Your task to perform on an android device: Open eBay Image 0: 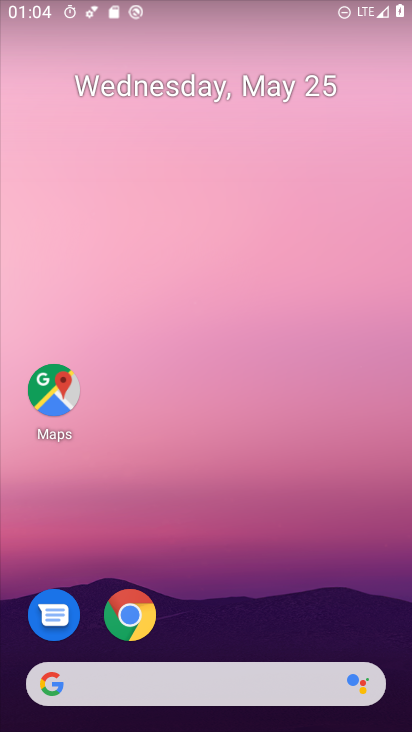
Step 0: press home button
Your task to perform on an android device: Open eBay Image 1: 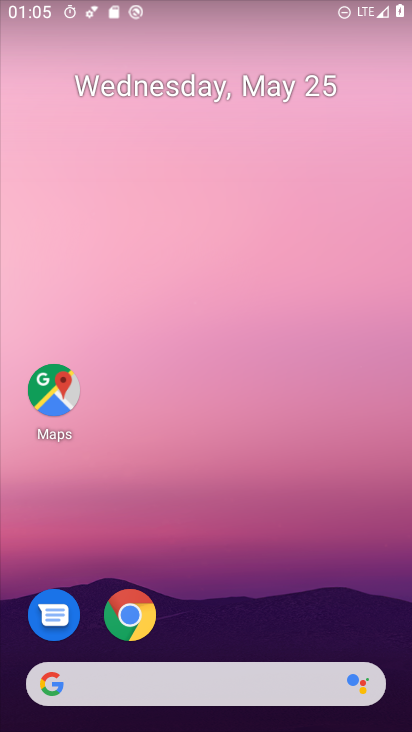
Step 1: drag from (241, 658) to (346, 105)
Your task to perform on an android device: Open eBay Image 2: 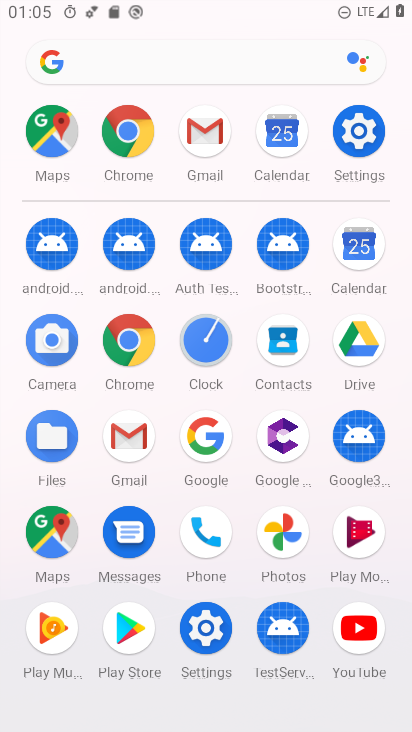
Step 2: click (136, 128)
Your task to perform on an android device: Open eBay Image 3: 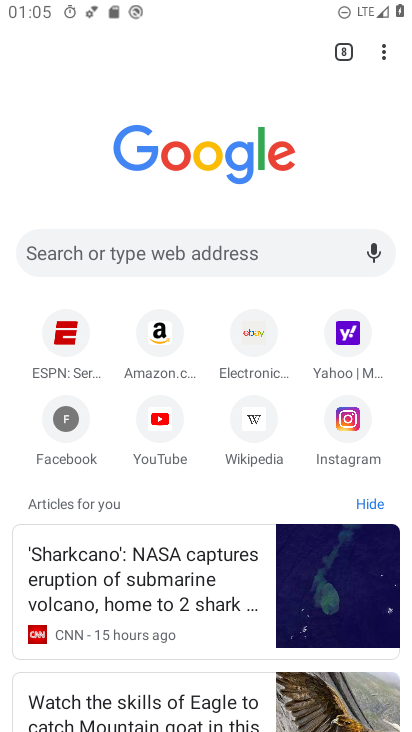
Step 3: click (244, 344)
Your task to perform on an android device: Open eBay Image 4: 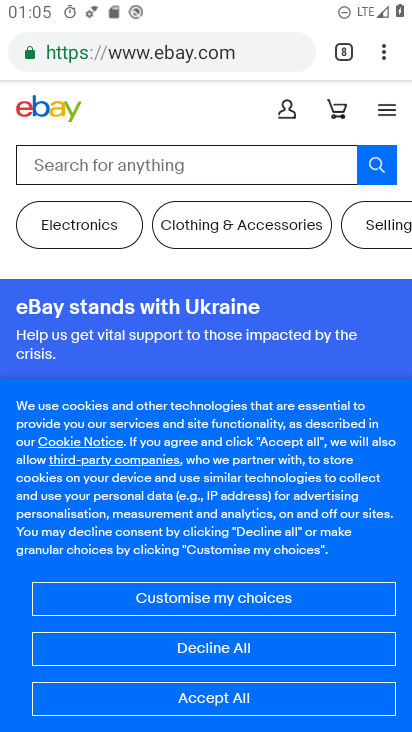
Step 4: click (192, 647)
Your task to perform on an android device: Open eBay Image 5: 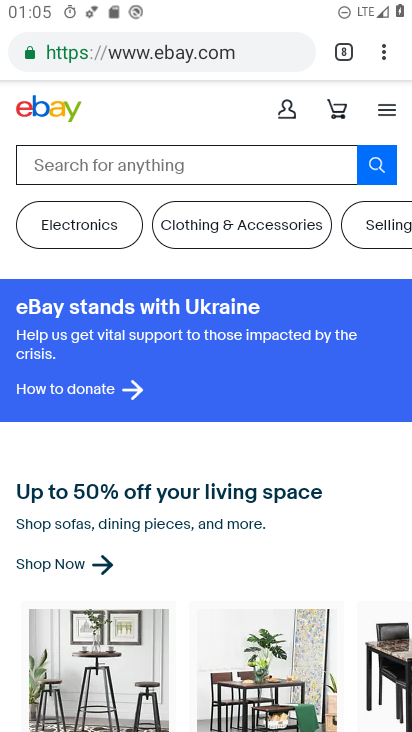
Step 5: task complete